Your task to perform on an android device: install app "Indeed Job Search" Image 0: 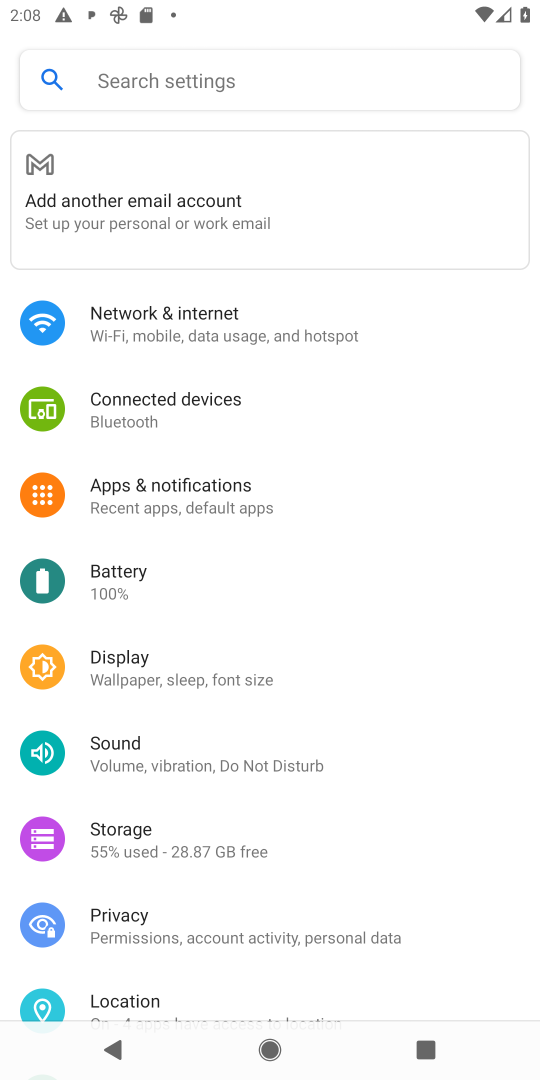
Step 0: press home button
Your task to perform on an android device: install app "Indeed Job Search" Image 1: 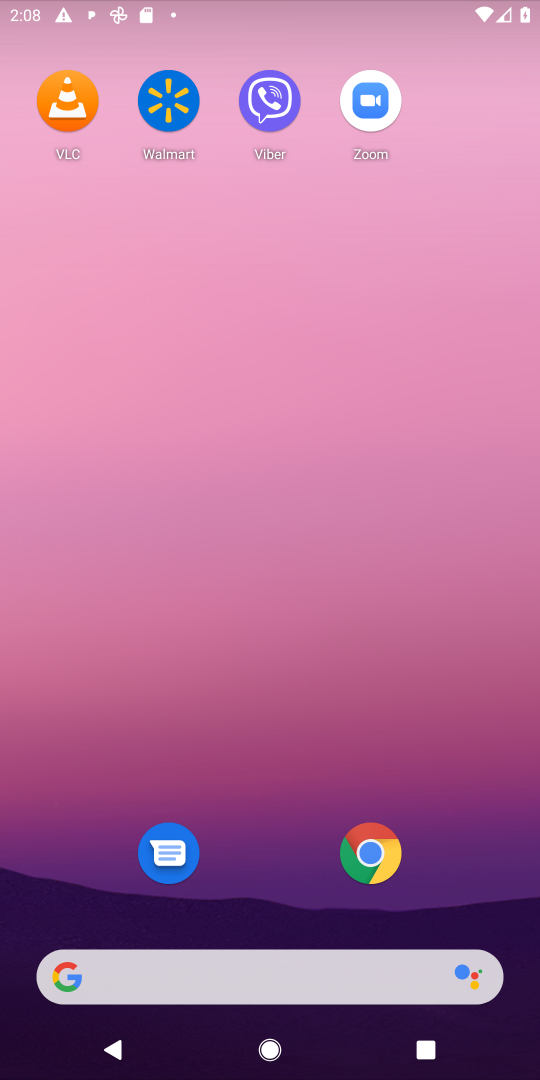
Step 1: drag from (284, 901) to (306, 91)
Your task to perform on an android device: install app "Indeed Job Search" Image 2: 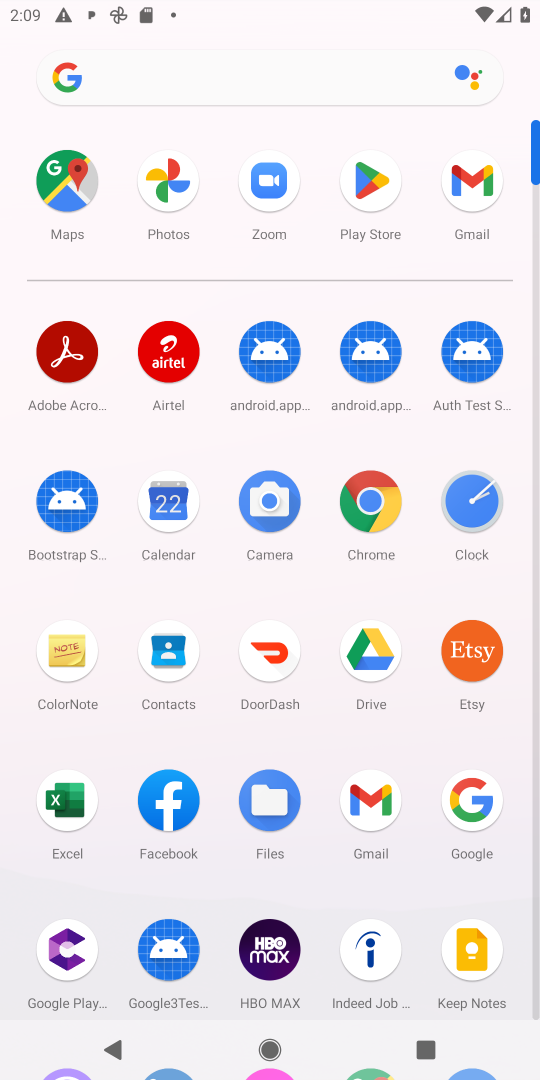
Step 2: click (365, 165)
Your task to perform on an android device: install app "Indeed Job Search" Image 3: 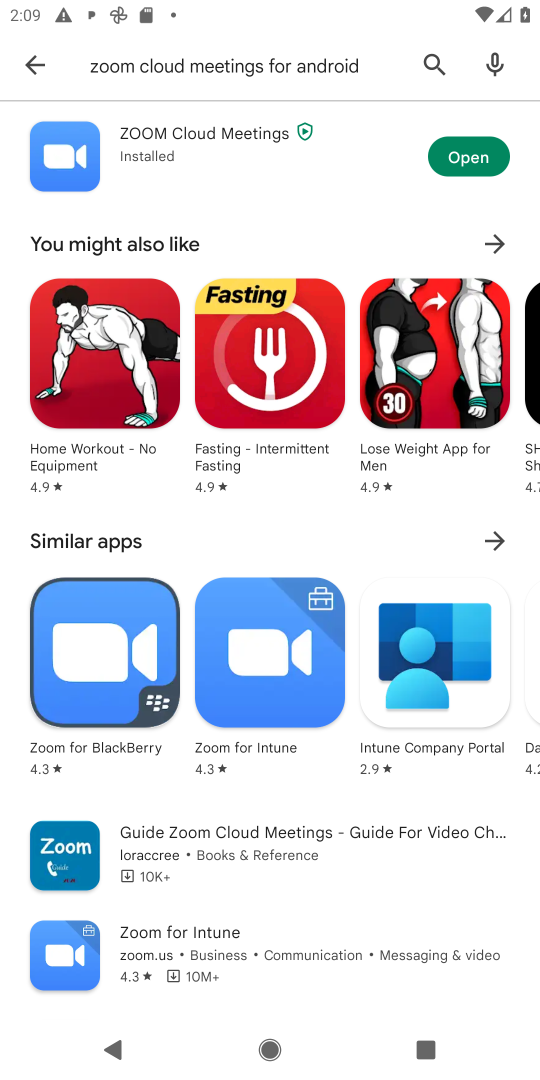
Step 3: click (21, 57)
Your task to perform on an android device: install app "Indeed Job Search" Image 4: 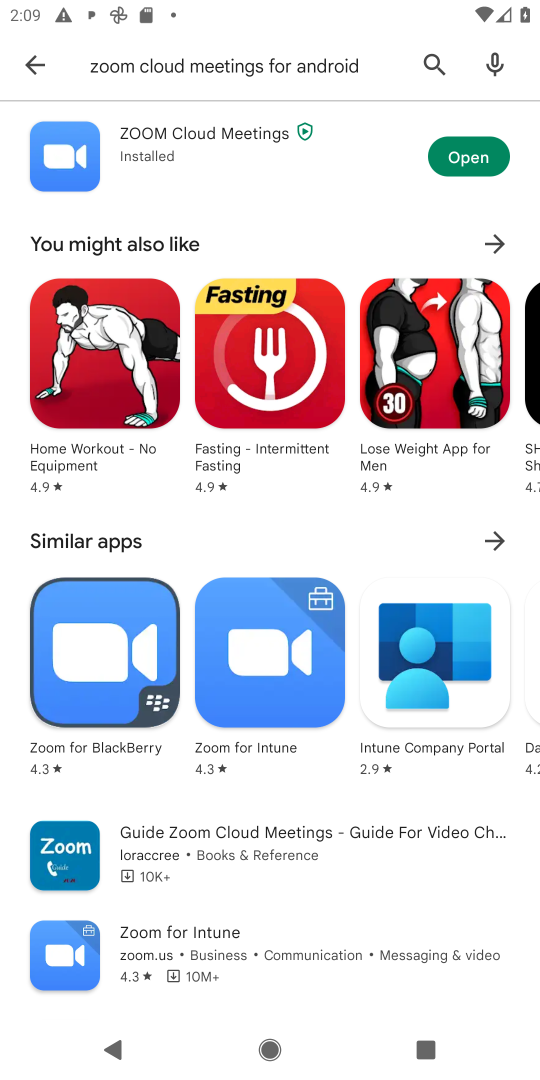
Step 4: click (52, 57)
Your task to perform on an android device: install app "Indeed Job Search" Image 5: 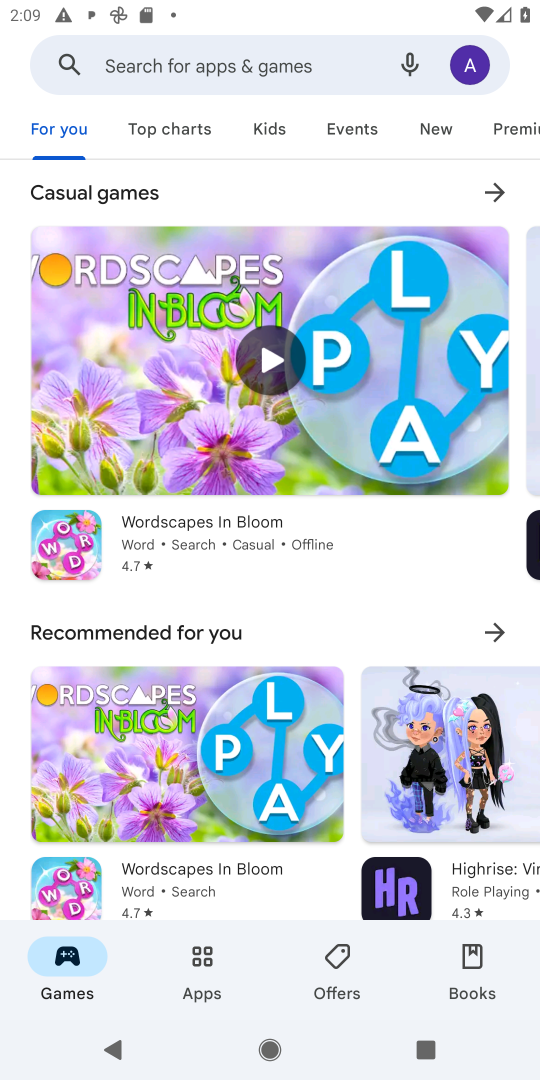
Step 5: click (219, 63)
Your task to perform on an android device: install app "Indeed Job Search" Image 6: 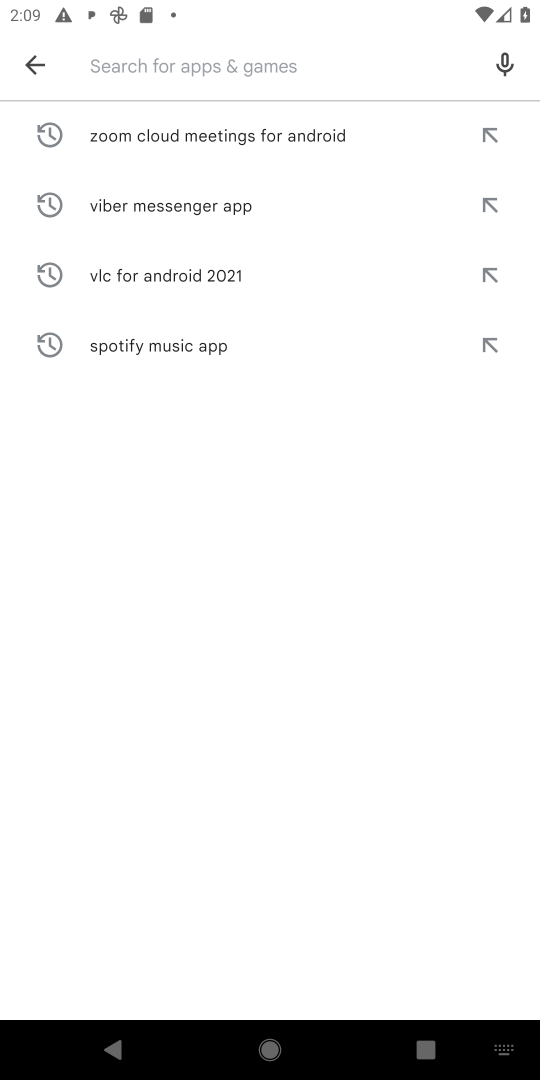
Step 6: type "Indeed Job Search "
Your task to perform on an android device: install app "Indeed Job Search" Image 7: 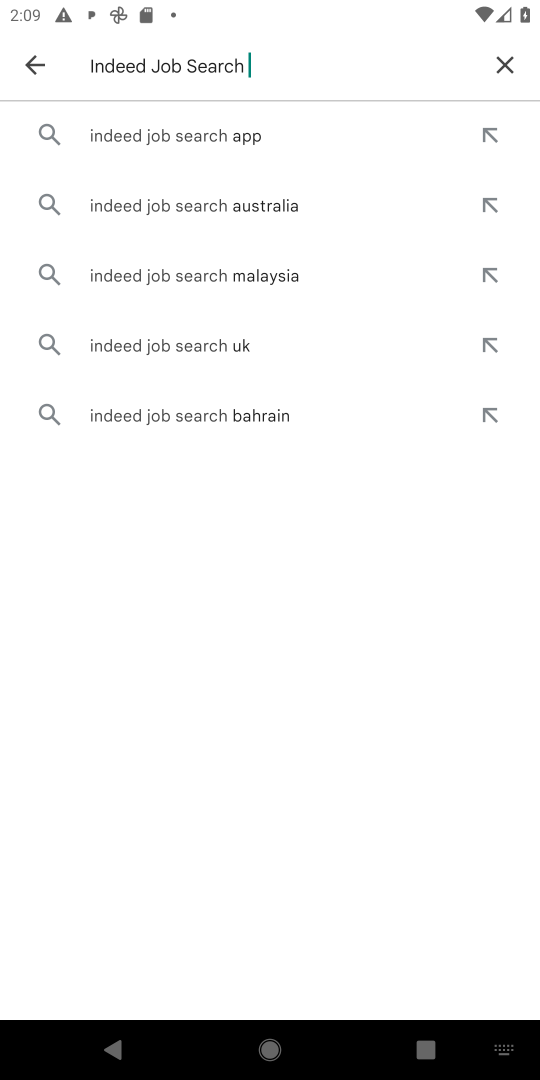
Step 7: click (197, 138)
Your task to perform on an android device: install app "Indeed Job Search" Image 8: 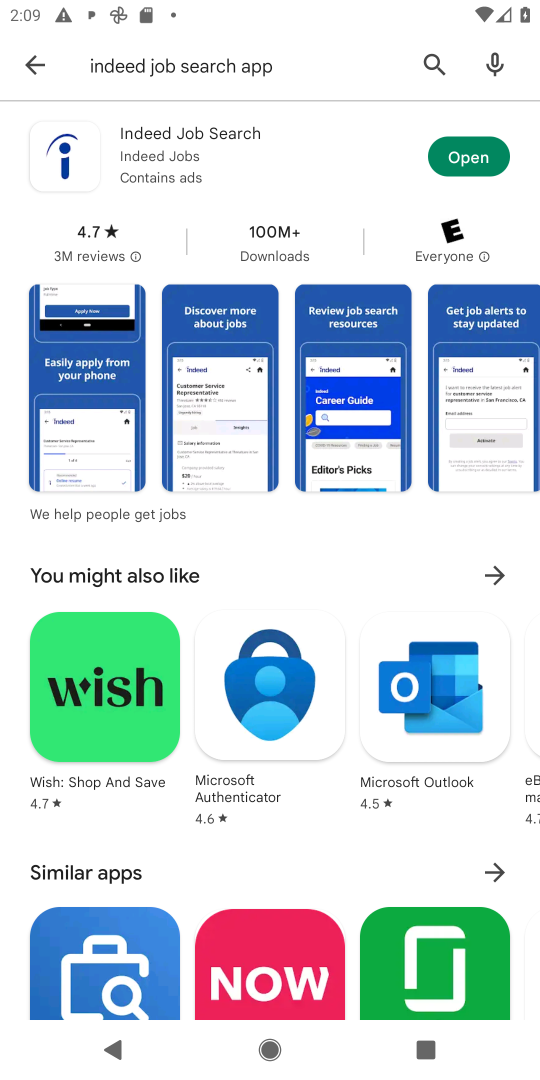
Step 8: click (463, 142)
Your task to perform on an android device: install app "Indeed Job Search" Image 9: 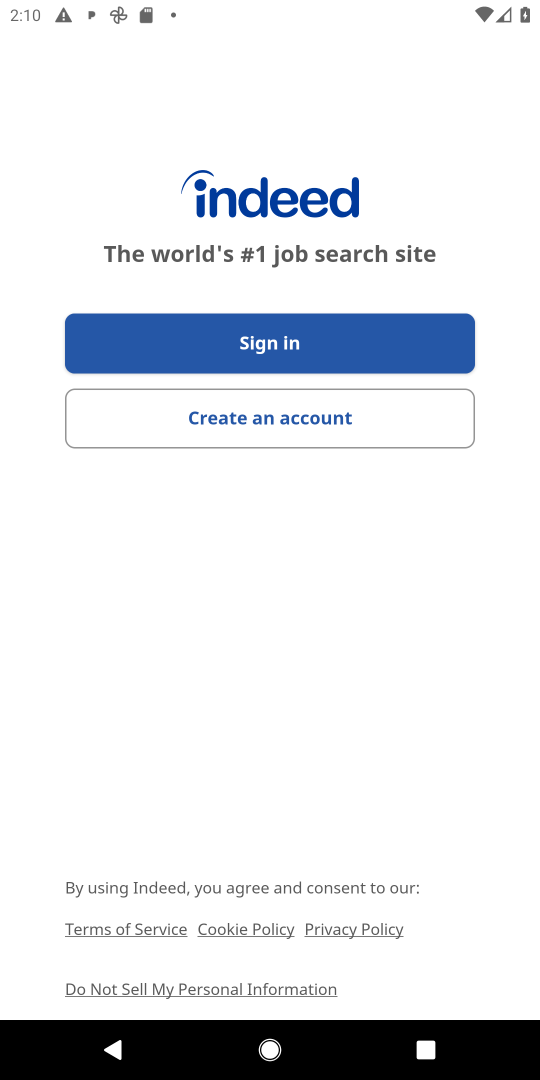
Step 9: task complete